Your task to perform on an android device: turn on notifications settings in the gmail app Image 0: 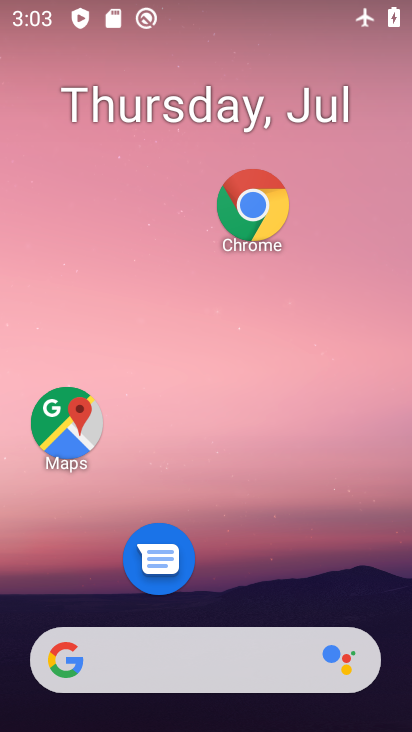
Step 0: drag from (314, 585) to (322, 234)
Your task to perform on an android device: turn on notifications settings in the gmail app Image 1: 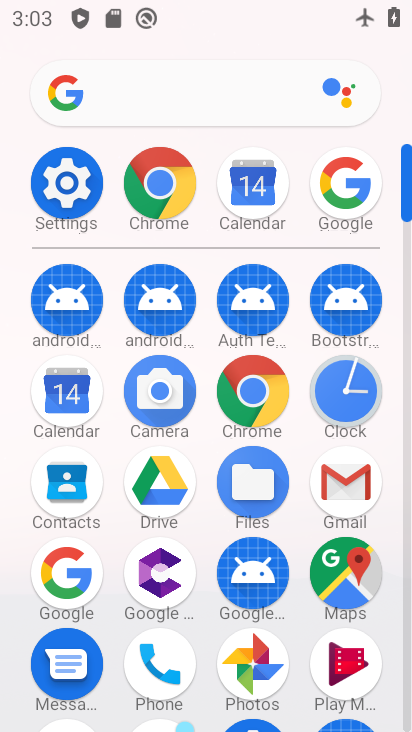
Step 1: click (351, 510)
Your task to perform on an android device: turn on notifications settings in the gmail app Image 2: 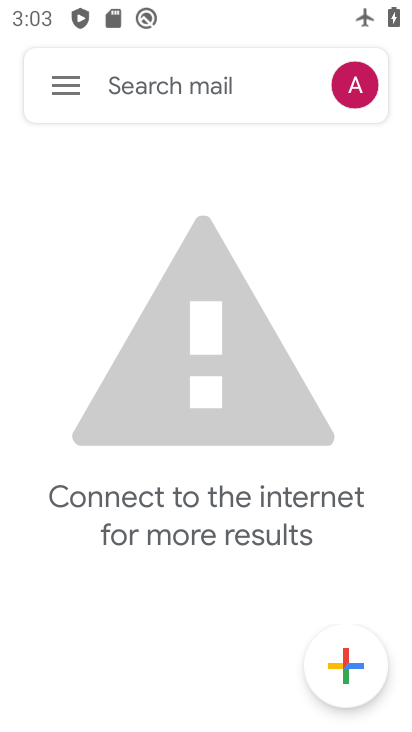
Step 2: click (65, 88)
Your task to perform on an android device: turn on notifications settings in the gmail app Image 3: 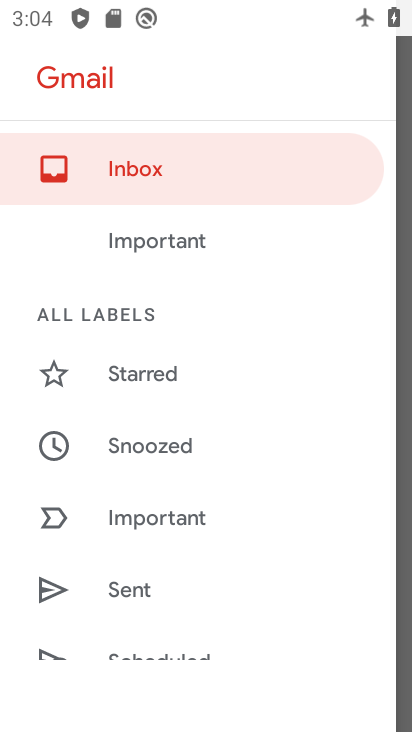
Step 3: drag from (163, 610) to (203, 333)
Your task to perform on an android device: turn on notifications settings in the gmail app Image 4: 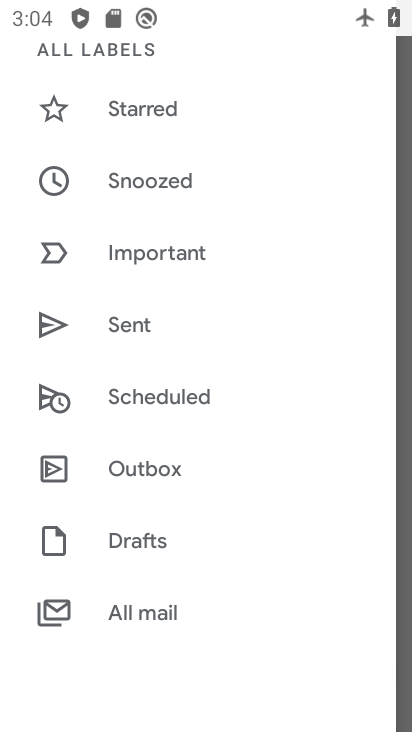
Step 4: drag from (231, 627) to (250, 272)
Your task to perform on an android device: turn on notifications settings in the gmail app Image 5: 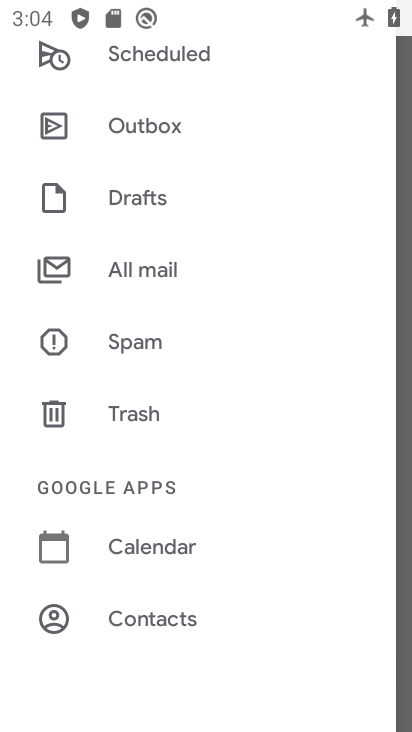
Step 5: drag from (214, 487) to (246, 185)
Your task to perform on an android device: turn on notifications settings in the gmail app Image 6: 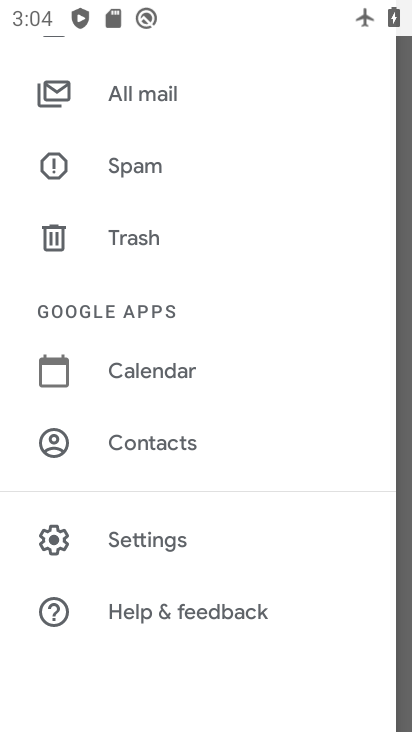
Step 6: click (152, 551)
Your task to perform on an android device: turn on notifications settings in the gmail app Image 7: 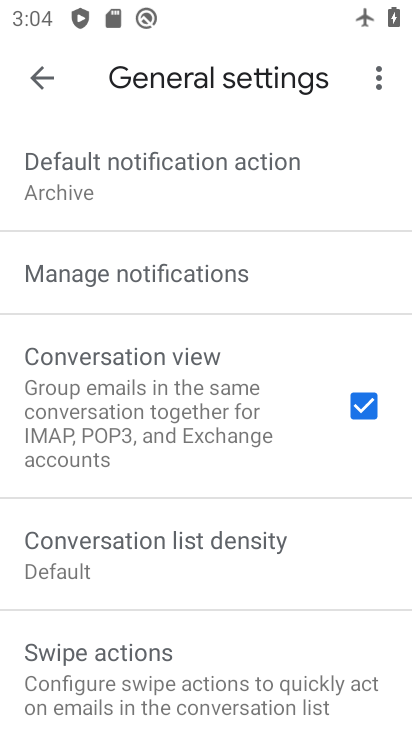
Step 7: click (140, 287)
Your task to perform on an android device: turn on notifications settings in the gmail app Image 8: 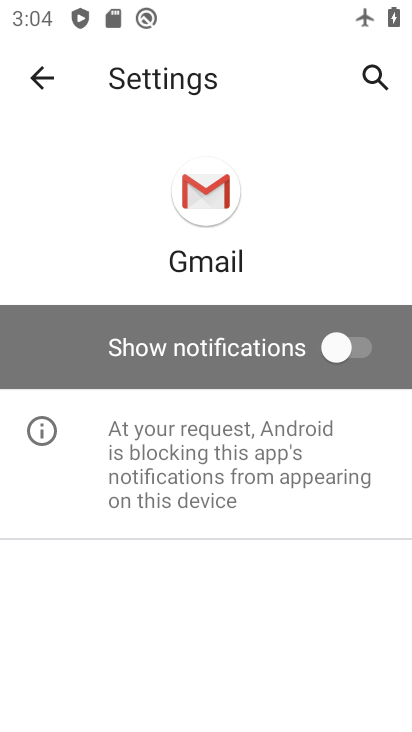
Step 8: click (358, 344)
Your task to perform on an android device: turn on notifications settings in the gmail app Image 9: 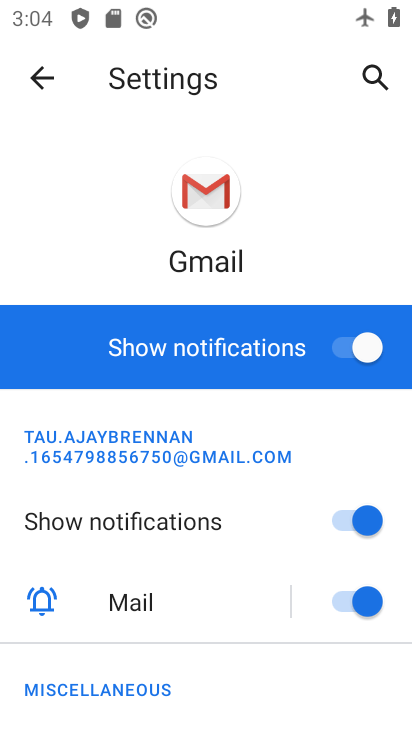
Step 9: task complete